Your task to perform on an android device: turn off sleep mode Image 0: 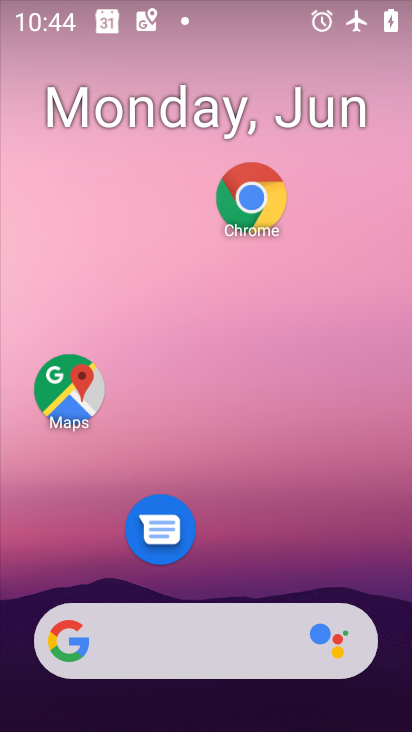
Step 0: drag from (210, 556) to (229, 156)
Your task to perform on an android device: turn off sleep mode Image 1: 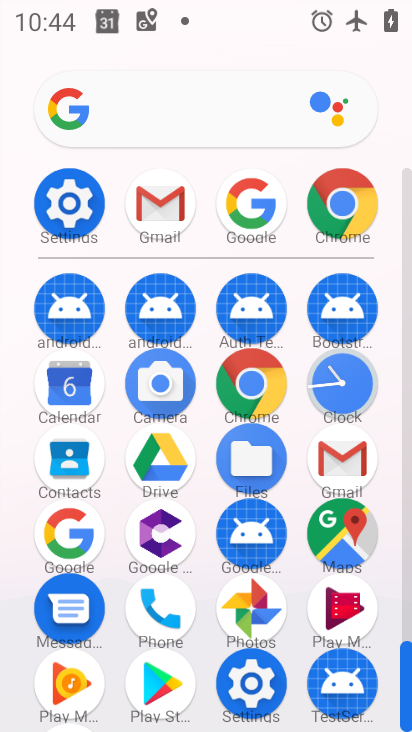
Step 1: click (62, 207)
Your task to perform on an android device: turn off sleep mode Image 2: 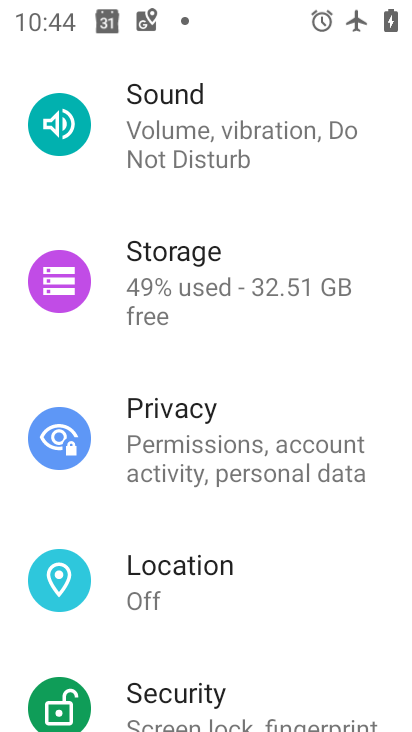
Step 2: drag from (158, 480) to (181, 209)
Your task to perform on an android device: turn off sleep mode Image 3: 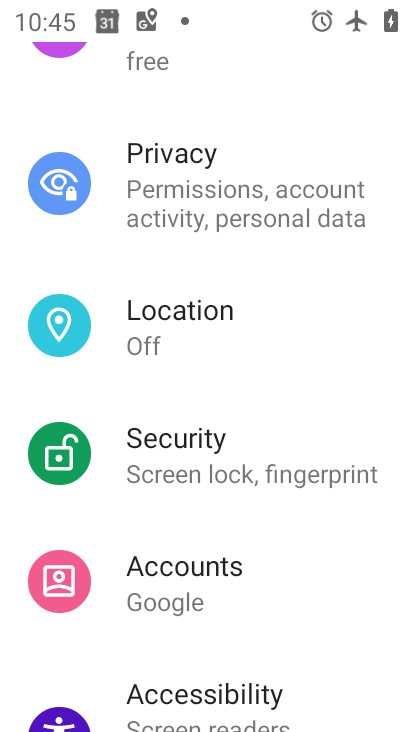
Step 3: drag from (181, 621) to (198, 292)
Your task to perform on an android device: turn off sleep mode Image 4: 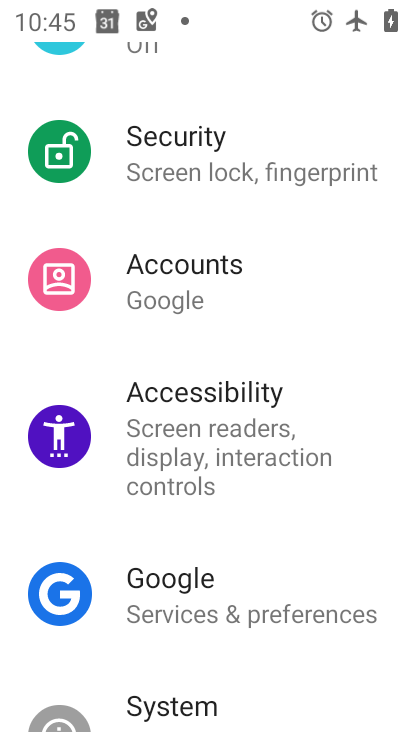
Step 4: drag from (232, 227) to (228, 530)
Your task to perform on an android device: turn off sleep mode Image 5: 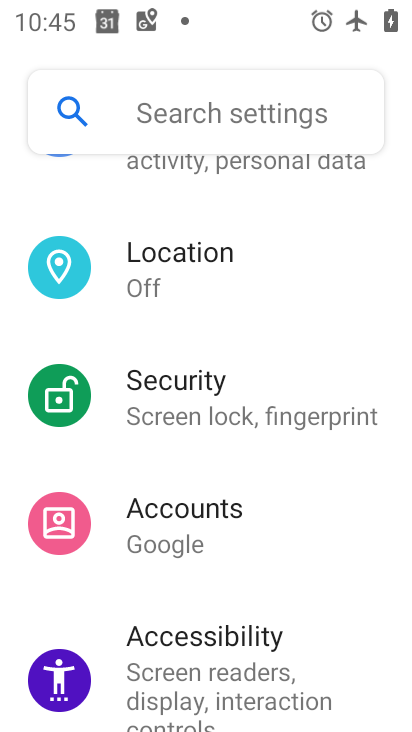
Step 5: drag from (202, 294) to (212, 599)
Your task to perform on an android device: turn off sleep mode Image 6: 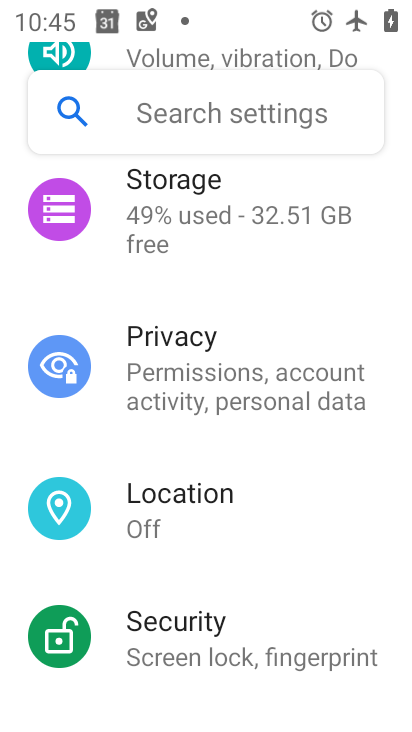
Step 6: drag from (201, 259) to (231, 580)
Your task to perform on an android device: turn off sleep mode Image 7: 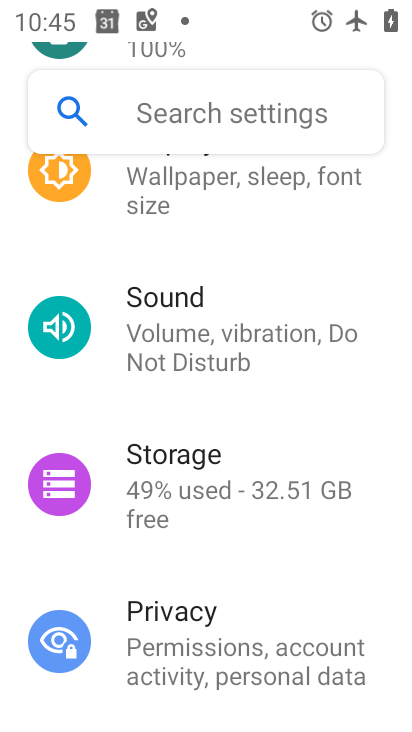
Step 7: drag from (228, 362) to (234, 578)
Your task to perform on an android device: turn off sleep mode Image 8: 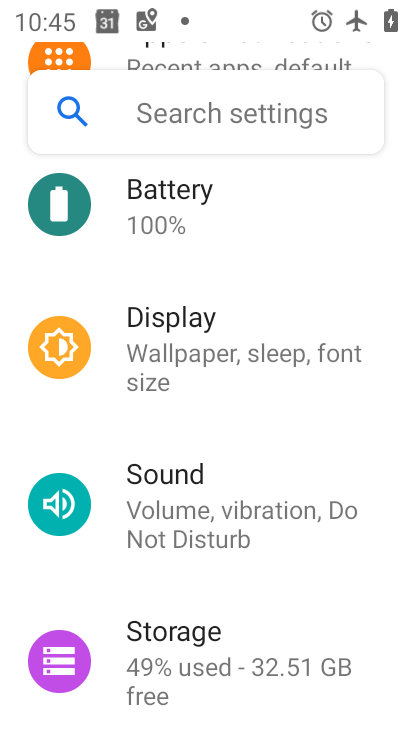
Step 8: click (204, 373)
Your task to perform on an android device: turn off sleep mode Image 9: 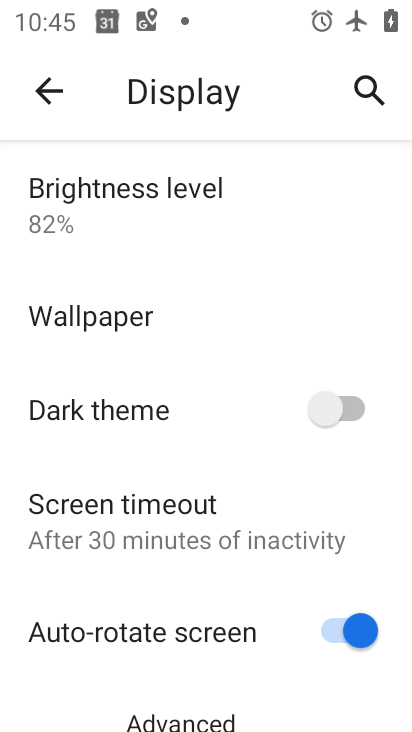
Step 9: drag from (190, 598) to (166, 250)
Your task to perform on an android device: turn off sleep mode Image 10: 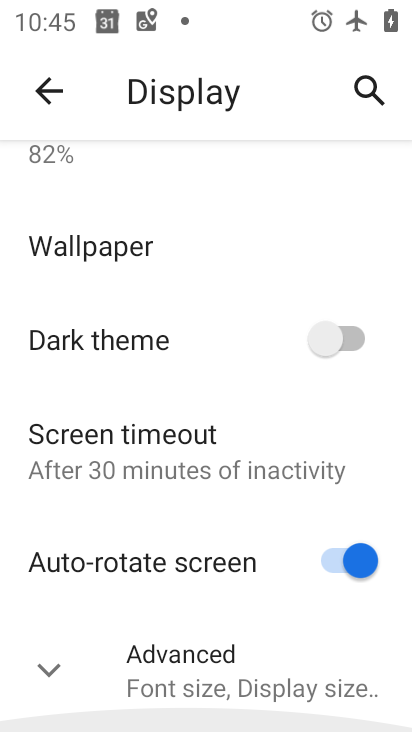
Step 10: drag from (166, 250) to (183, 558)
Your task to perform on an android device: turn off sleep mode Image 11: 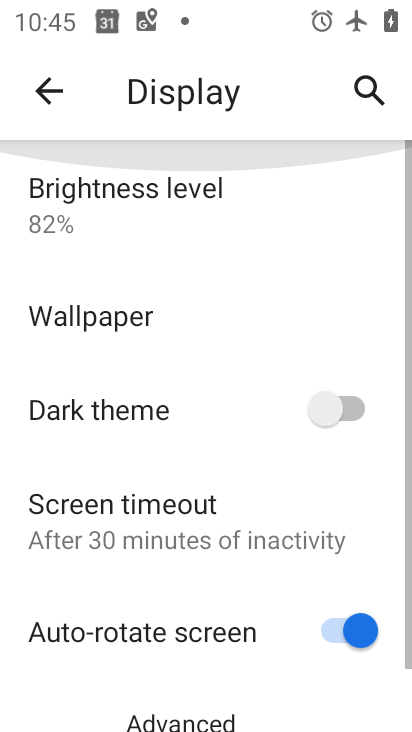
Step 11: drag from (183, 289) to (201, 466)
Your task to perform on an android device: turn off sleep mode Image 12: 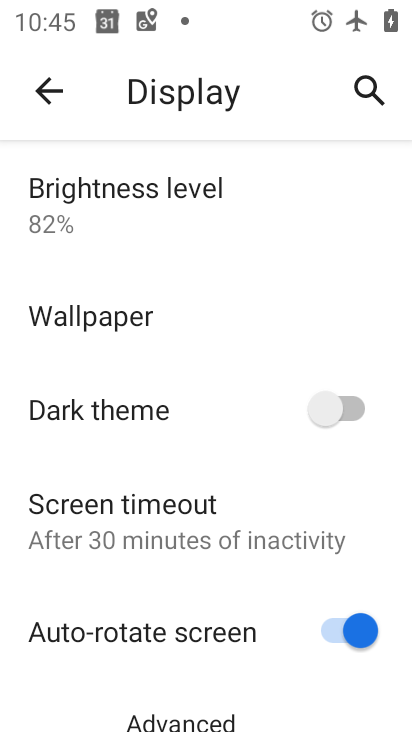
Step 12: click (162, 505)
Your task to perform on an android device: turn off sleep mode Image 13: 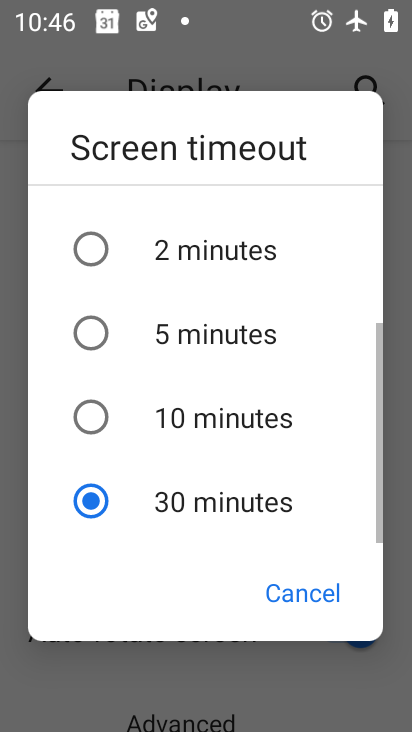
Step 13: click (192, 338)
Your task to perform on an android device: turn off sleep mode Image 14: 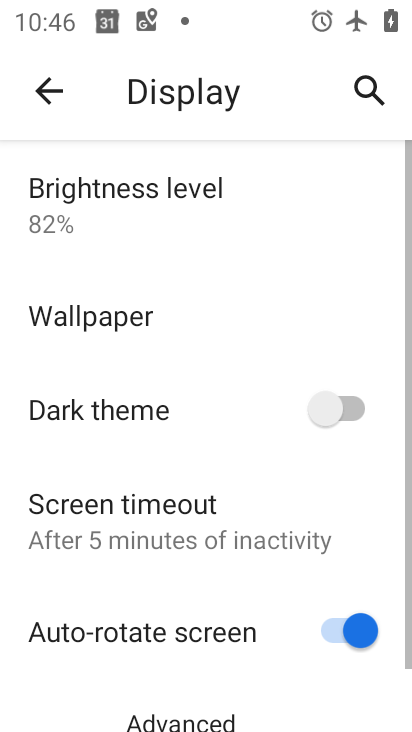
Step 14: task complete